Your task to perform on an android device: Go to internet settings Image 0: 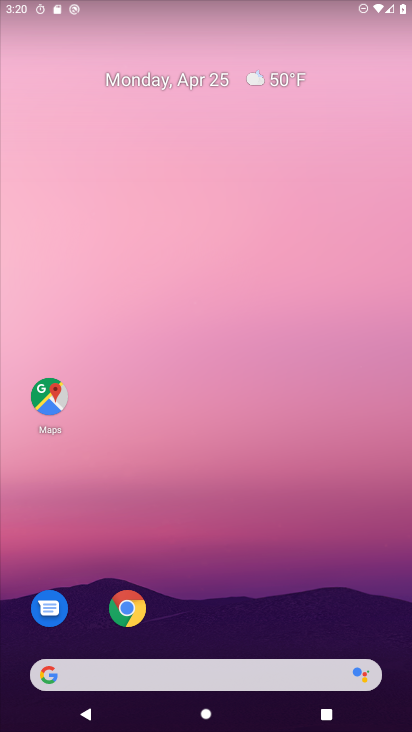
Step 0: drag from (217, 633) to (227, 169)
Your task to perform on an android device: Go to internet settings Image 1: 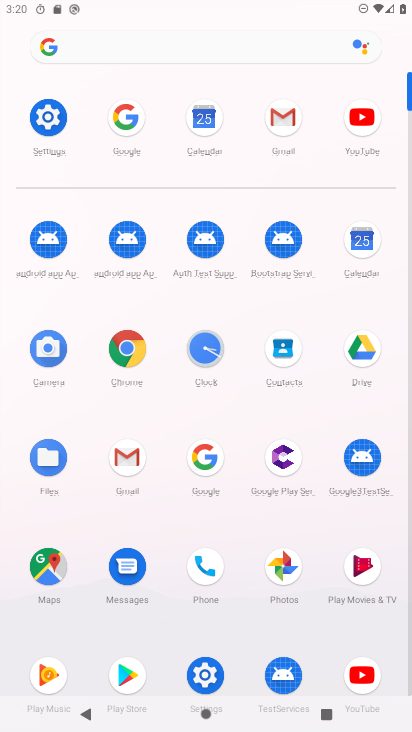
Step 1: click (43, 121)
Your task to perform on an android device: Go to internet settings Image 2: 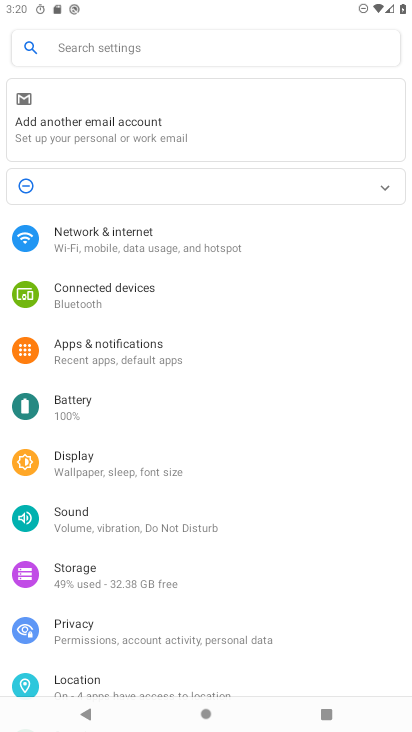
Step 2: click (114, 243)
Your task to perform on an android device: Go to internet settings Image 3: 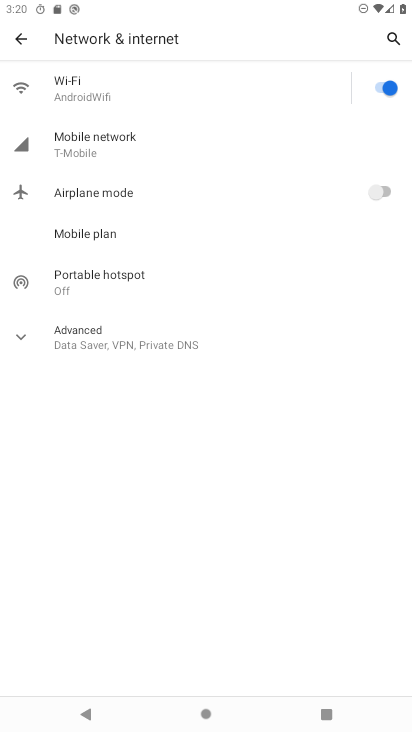
Step 3: task complete